Your task to perform on an android device: turn on showing notifications on the lock screen Image 0: 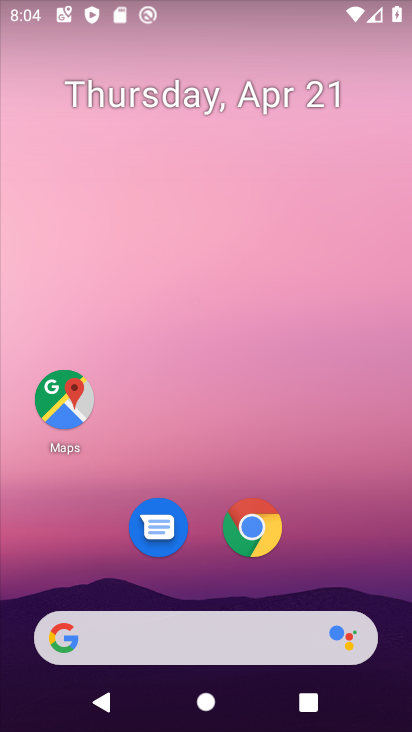
Step 0: drag from (258, 503) to (359, 106)
Your task to perform on an android device: turn on showing notifications on the lock screen Image 1: 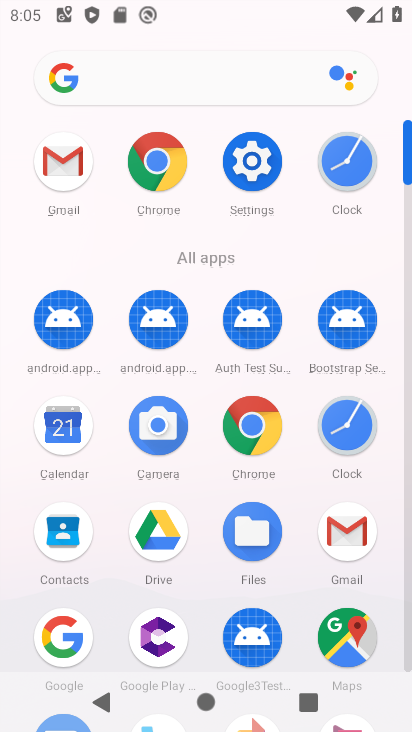
Step 1: click (264, 168)
Your task to perform on an android device: turn on showing notifications on the lock screen Image 2: 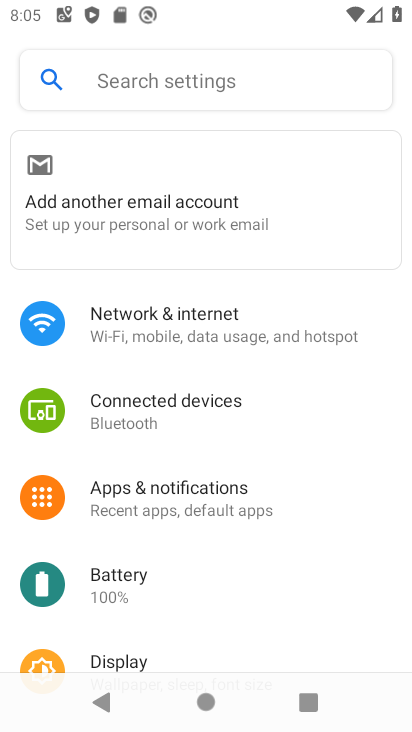
Step 2: drag from (225, 540) to (266, 340)
Your task to perform on an android device: turn on showing notifications on the lock screen Image 3: 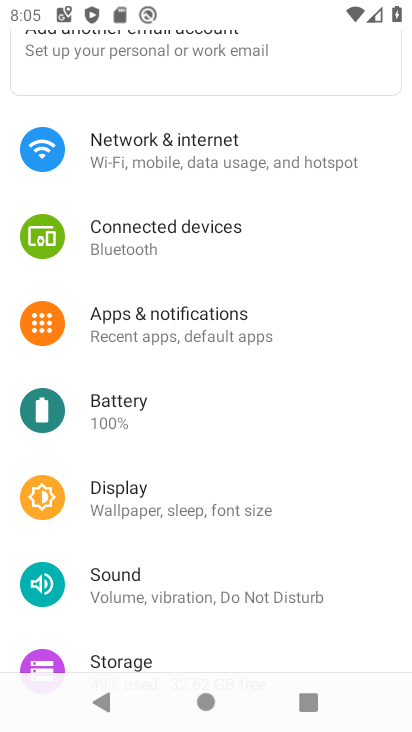
Step 3: click (291, 290)
Your task to perform on an android device: turn on showing notifications on the lock screen Image 4: 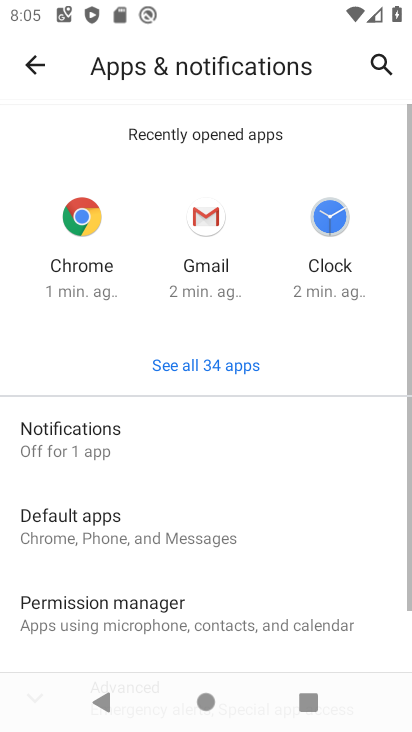
Step 4: click (234, 471)
Your task to perform on an android device: turn on showing notifications on the lock screen Image 5: 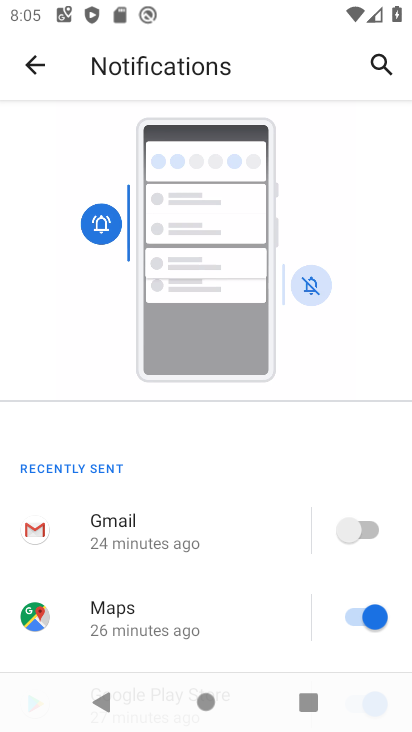
Step 5: drag from (196, 543) to (289, 245)
Your task to perform on an android device: turn on showing notifications on the lock screen Image 6: 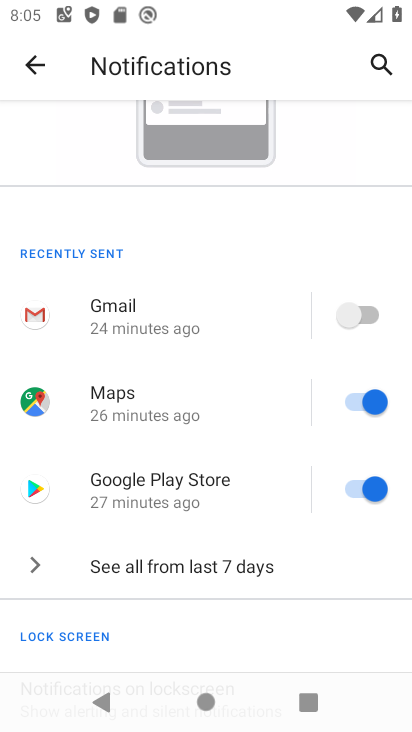
Step 6: drag from (262, 545) to (290, 360)
Your task to perform on an android device: turn on showing notifications on the lock screen Image 7: 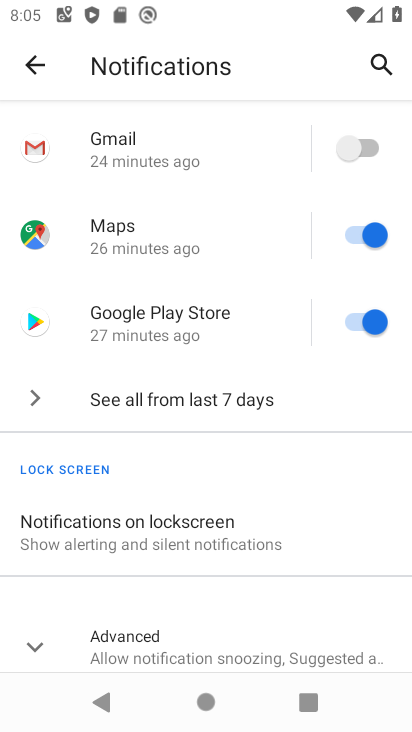
Step 7: click (199, 535)
Your task to perform on an android device: turn on showing notifications on the lock screen Image 8: 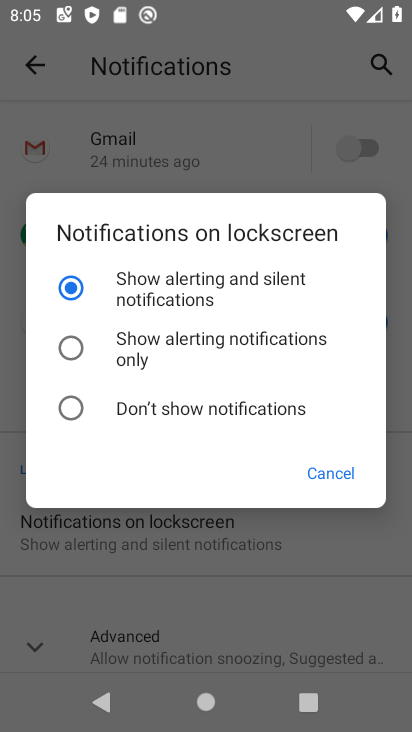
Step 8: task complete